Your task to perform on an android device: Search for a 100 ft extension cord Image 0: 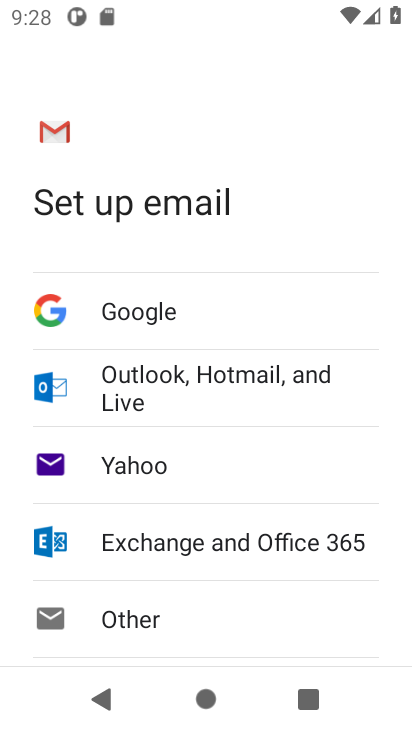
Step 0: press home button
Your task to perform on an android device: Search for a 100 ft extension cord Image 1: 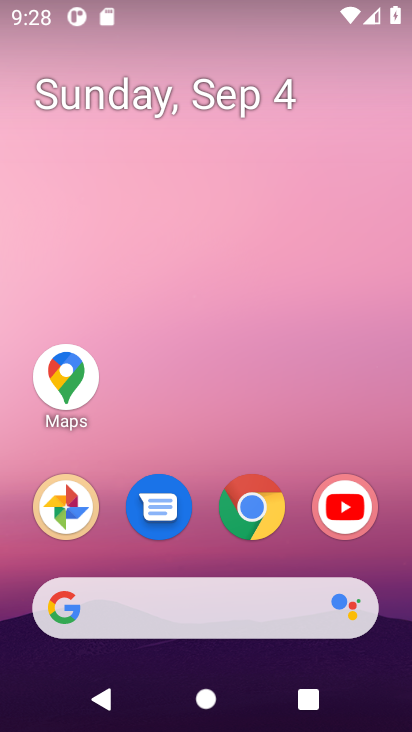
Step 1: click (250, 503)
Your task to perform on an android device: Search for a 100 ft extension cord Image 2: 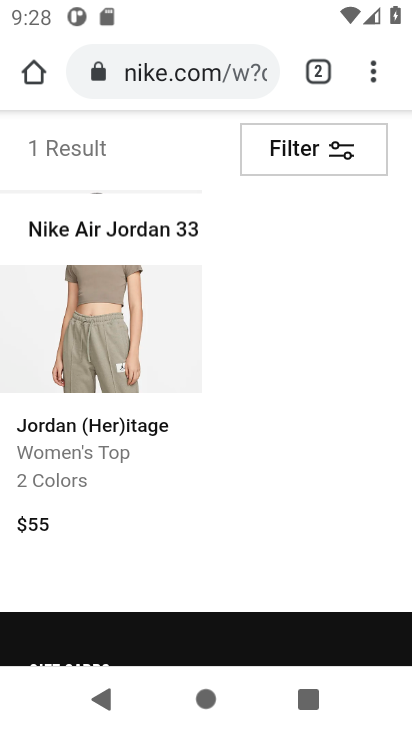
Step 2: click (167, 56)
Your task to perform on an android device: Search for a 100 ft extension cord Image 3: 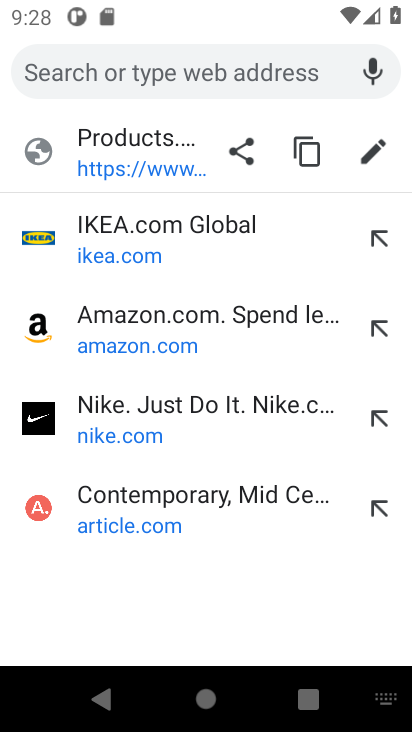
Step 3: type "100 ft extension cord"
Your task to perform on an android device: Search for a 100 ft extension cord Image 4: 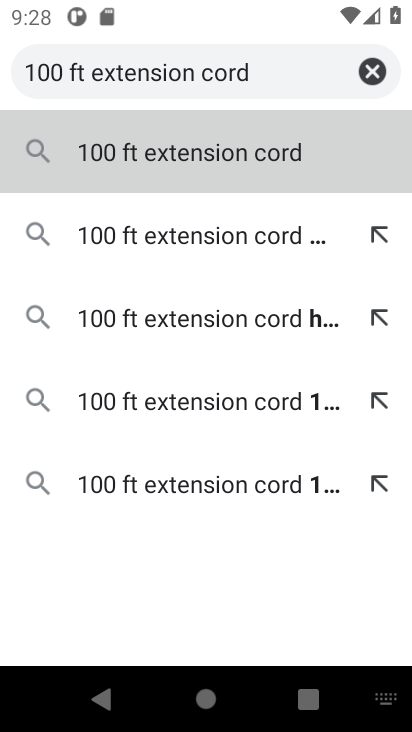
Step 4: click (150, 146)
Your task to perform on an android device: Search for a 100 ft extension cord Image 5: 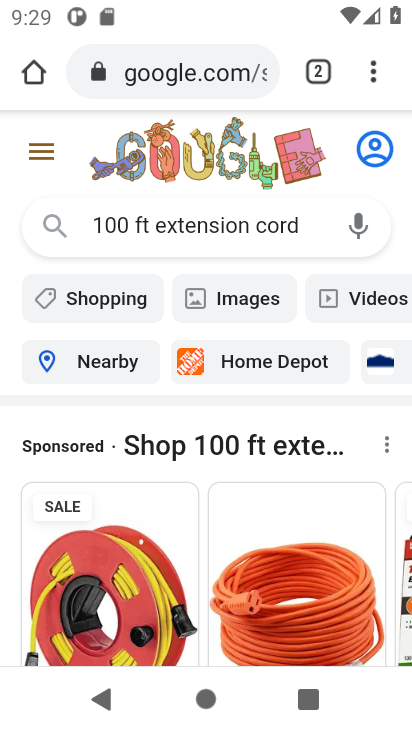
Step 5: drag from (202, 485) to (193, 174)
Your task to perform on an android device: Search for a 100 ft extension cord Image 6: 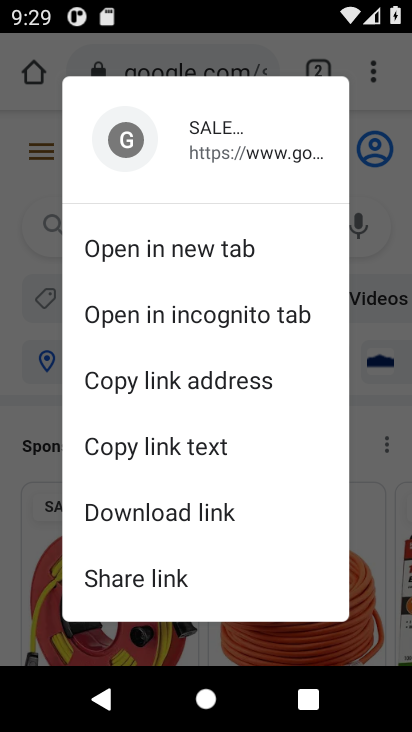
Step 6: click (1, 325)
Your task to perform on an android device: Search for a 100 ft extension cord Image 7: 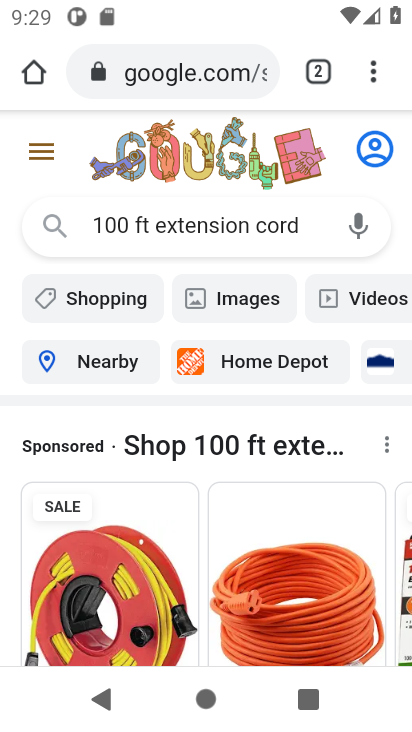
Step 7: drag from (206, 476) to (202, 162)
Your task to perform on an android device: Search for a 100 ft extension cord Image 8: 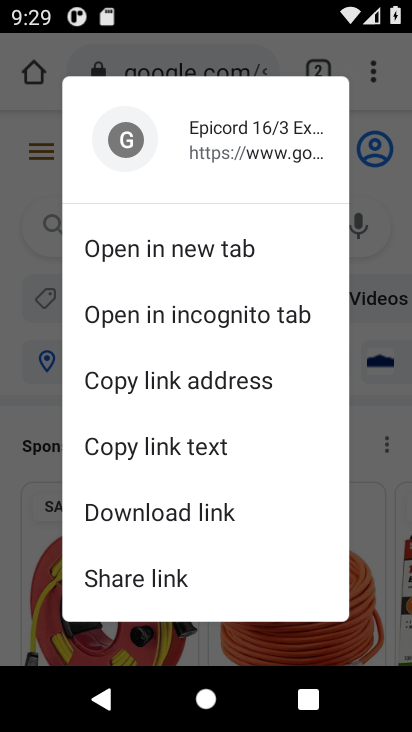
Step 8: click (10, 422)
Your task to perform on an android device: Search for a 100 ft extension cord Image 9: 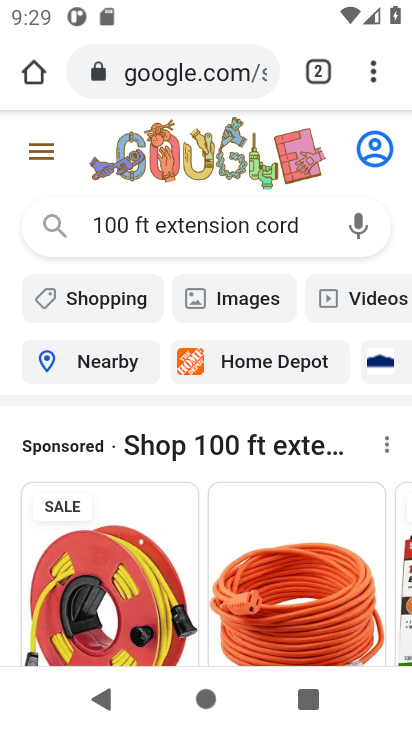
Step 9: task complete